Your task to perform on an android device: Open the Play Movies app and select the watchlist tab. Image 0: 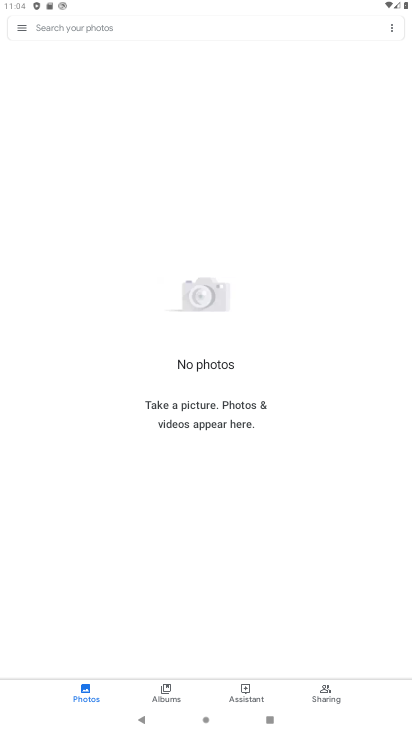
Step 0: press home button
Your task to perform on an android device: Open the Play Movies app and select the watchlist tab. Image 1: 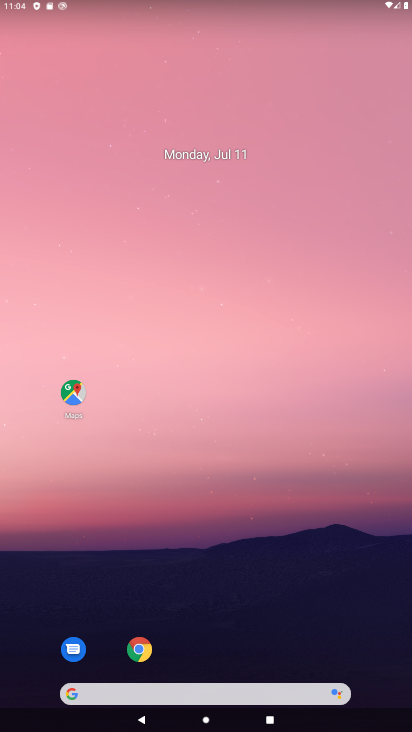
Step 1: drag from (223, 688) to (268, 210)
Your task to perform on an android device: Open the Play Movies app and select the watchlist tab. Image 2: 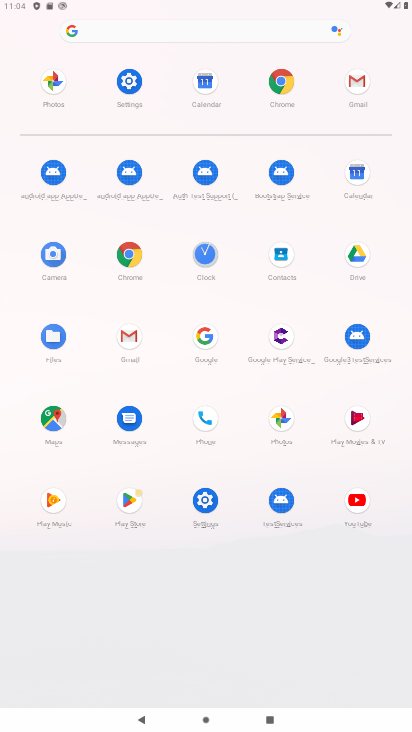
Step 2: click (359, 420)
Your task to perform on an android device: Open the Play Movies app and select the watchlist tab. Image 3: 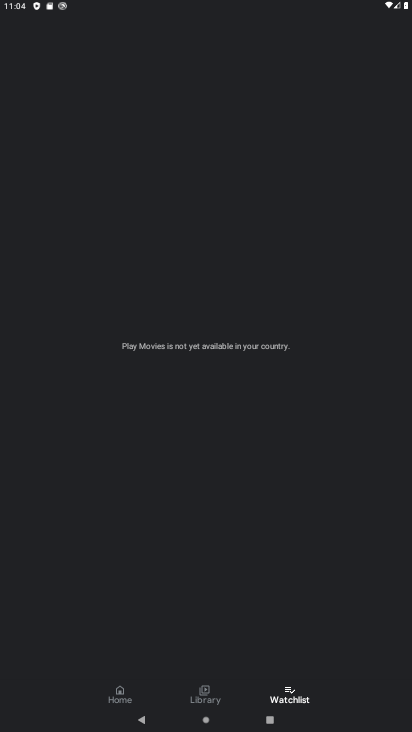
Step 3: click (294, 688)
Your task to perform on an android device: Open the Play Movies app and select the watchlist tab. Image 4: 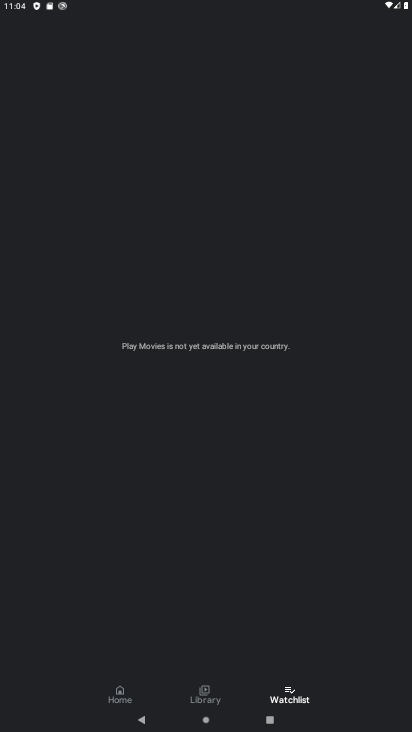
Step 4: task complete